Your task to perform on an android device: open chrome privacy settings Image 0: 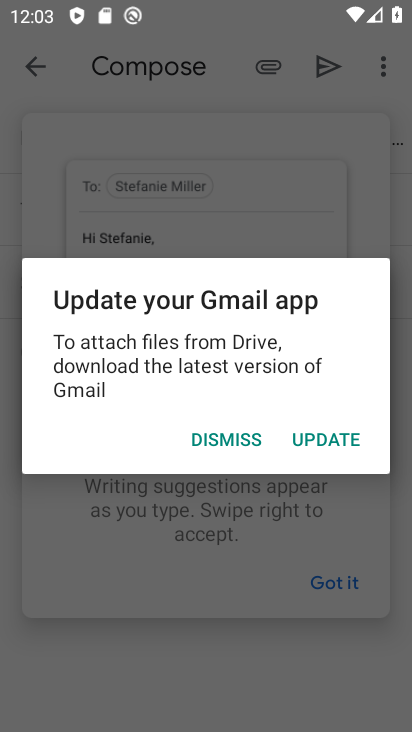
Step 0: click (266, 582)
Your task to perform on an android device: open chrome privacy settings Image 1: 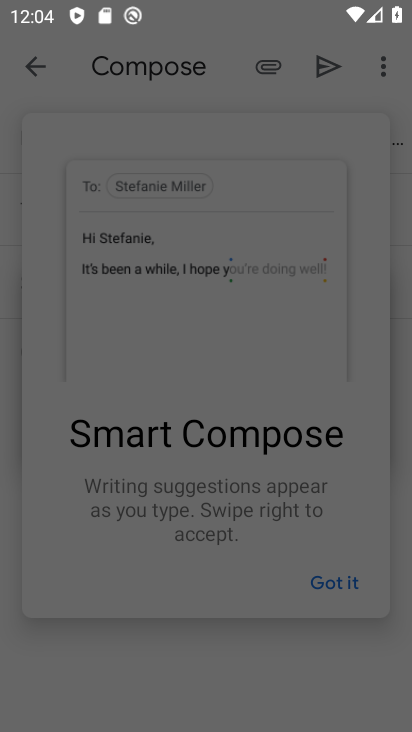
Step 1: press home button
Your task to perform on an android device: open chrome privacy settings Image 2: 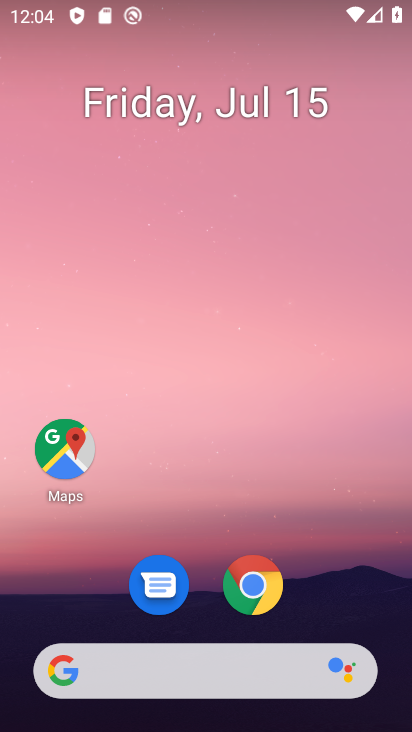
Step 2: click (263, 576)
Your task to perform on an android device: open chrome privacy settings Image 3: 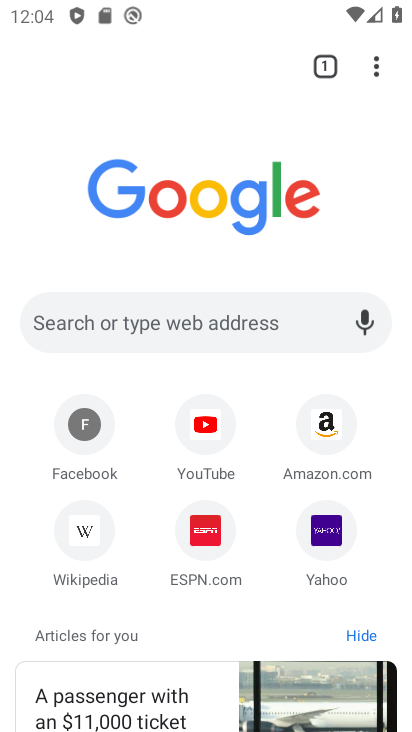
Step 3: click (373, 71)
Your task to perform on an android device: open chrome privacy settings Image 4: 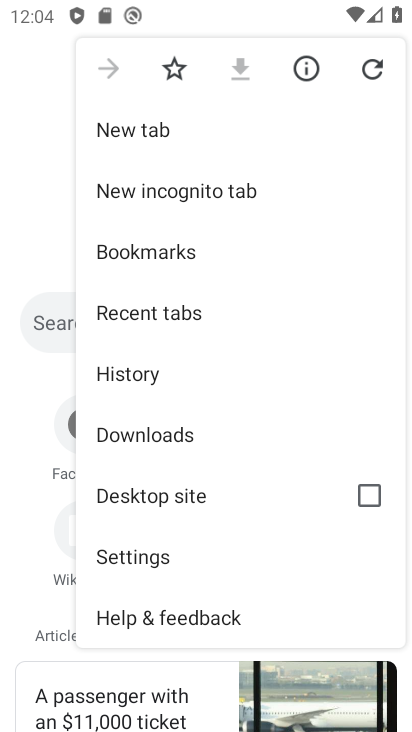
Step 4: click (159, 558)
Your task to perform on an android device: open chrome privacy settings Image 5: 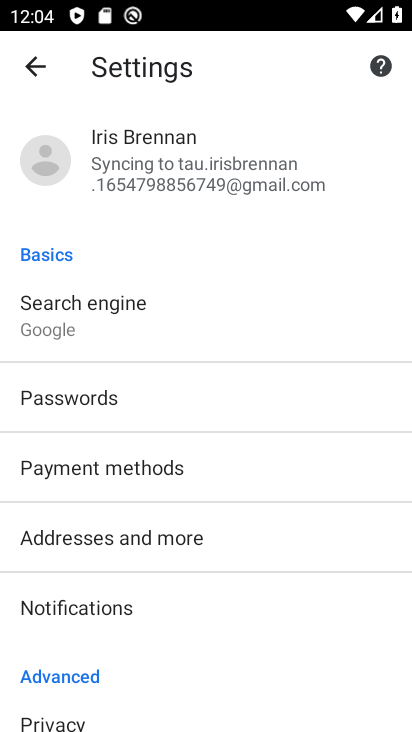
Step 5: drag from (266, 477) to (266, 304)
Your task to perform on an android device: open chrome privacy settings Image 6: 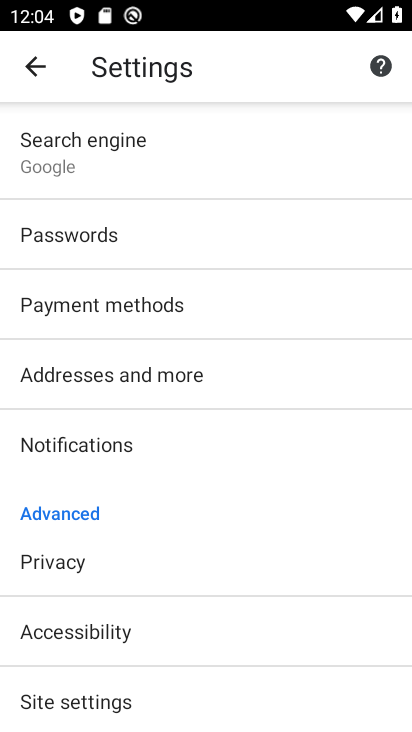
Step 6: click (72, 567)
Your task to perform on an android device: open chrome privacy settings Image 7: 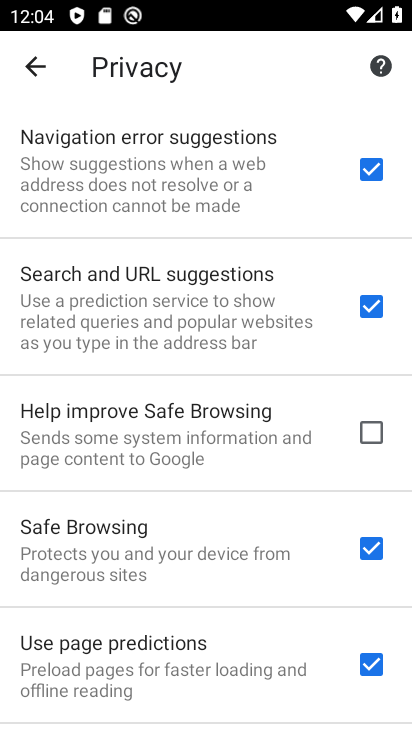
Step 7: task complete